Your task to perform on an android device: Clear the cart on newegg. Add usb-b to the cart on newegg Image 0: 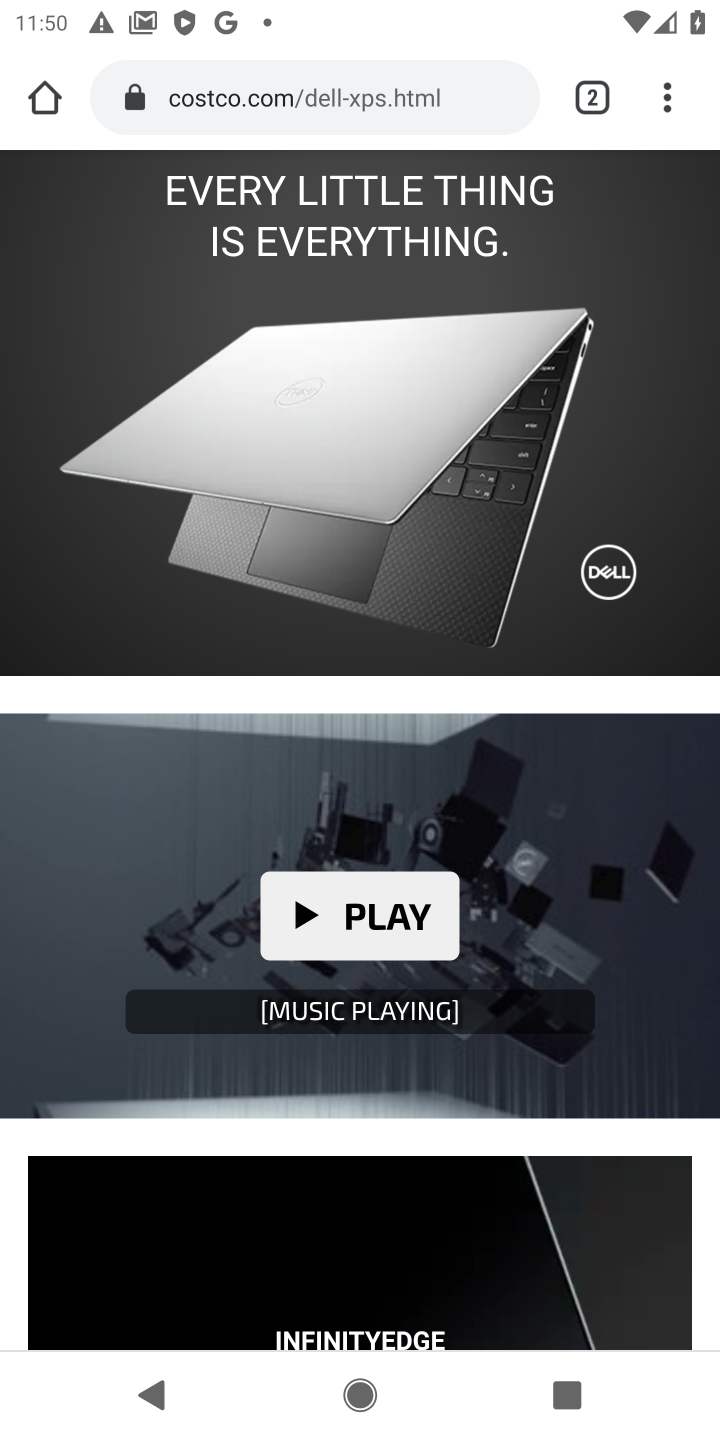
Step 0: press home button
Your task to perform on an android device: Clear the cart on newegg. Add usb-b to the cart on newegg Image 1: 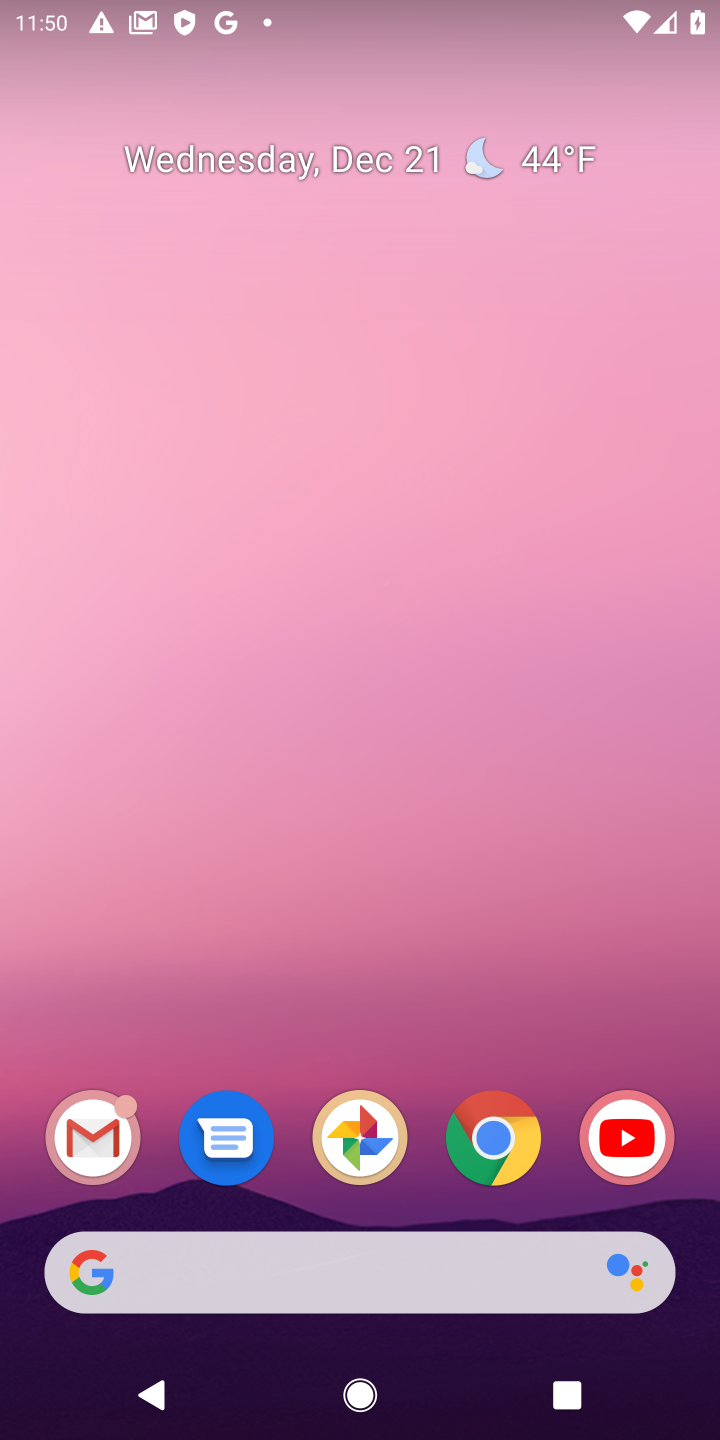
Step 1: click (479, 1152)
Your task to perform on an android device: Clear the cart on newegg. Add usb-b to the cart on newegg Image 2: 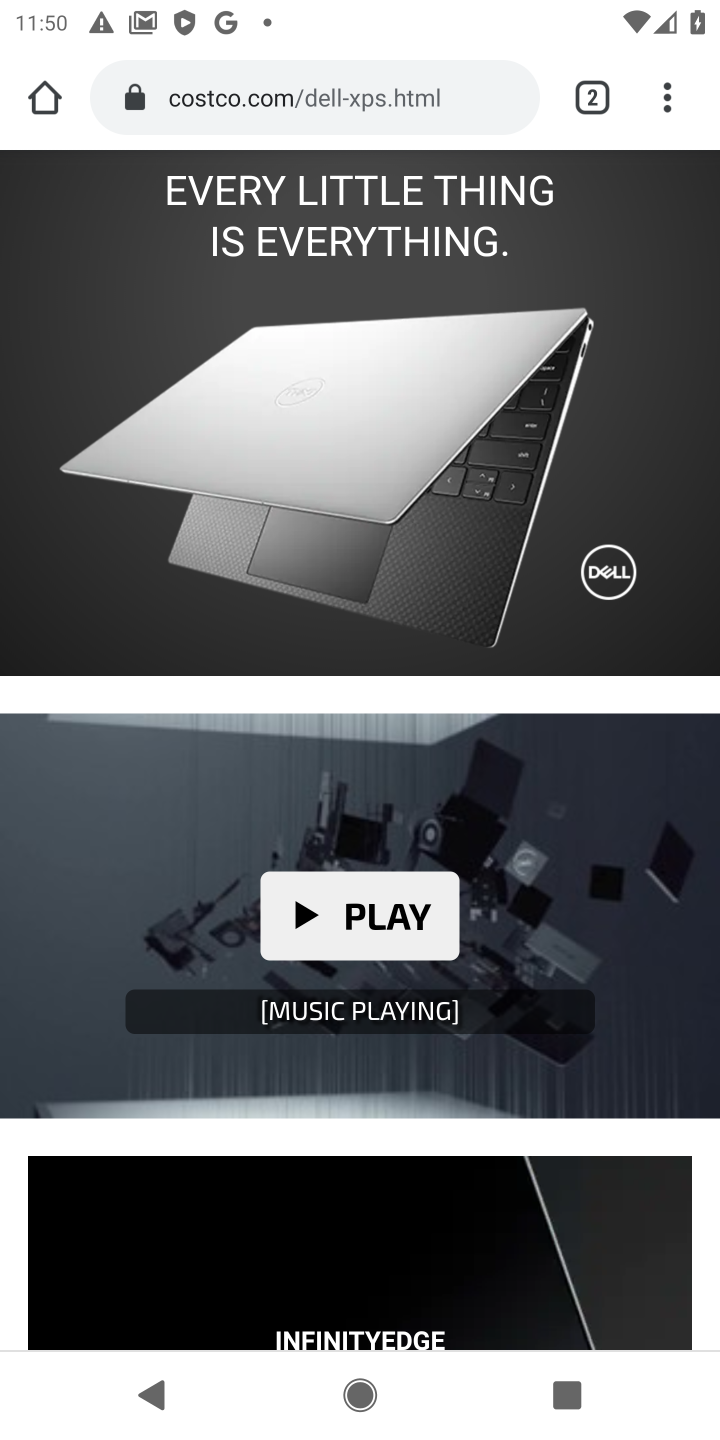
Step 2: click (255, 105)
Your task to perform on an android device: Clear the cart on newegg. Add usb-b to the cart on newegg Image 3: 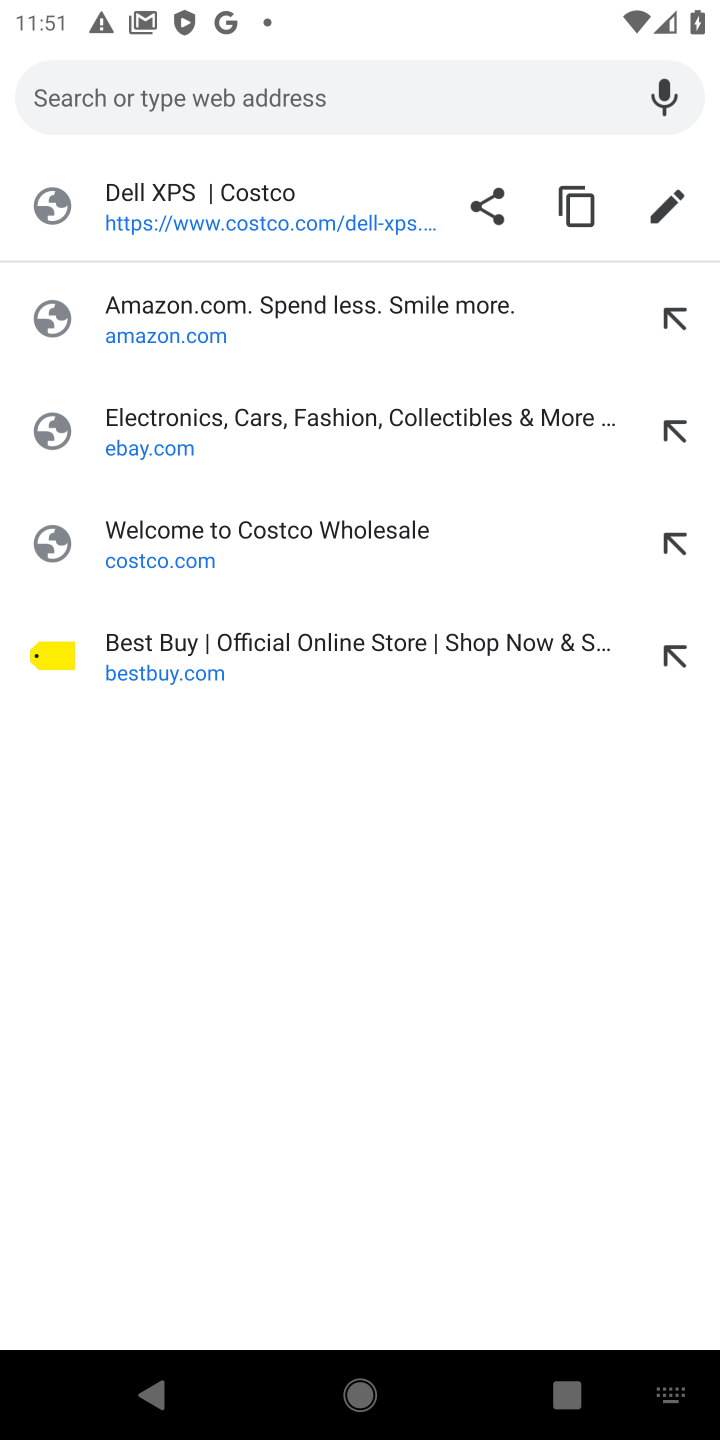
Step 3: type "newegg.com"
Your task to perform on an android device: Clear the cart on newegg. Add usb-b to the cart on newegg Image 4: 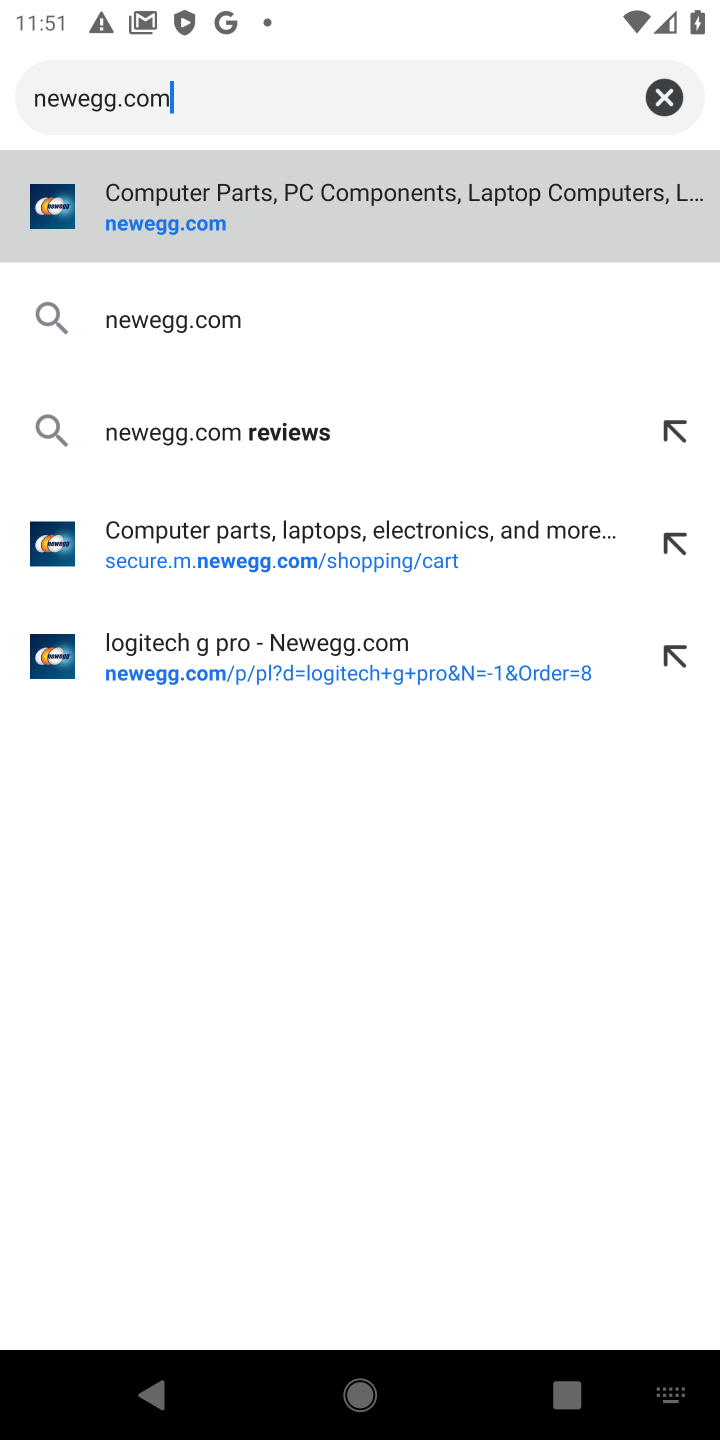
Step 4: click (155, 204)
Your task to perform on an android device: Clear the cart on newegg. Add usb-b to the cart on newegg Image 5: 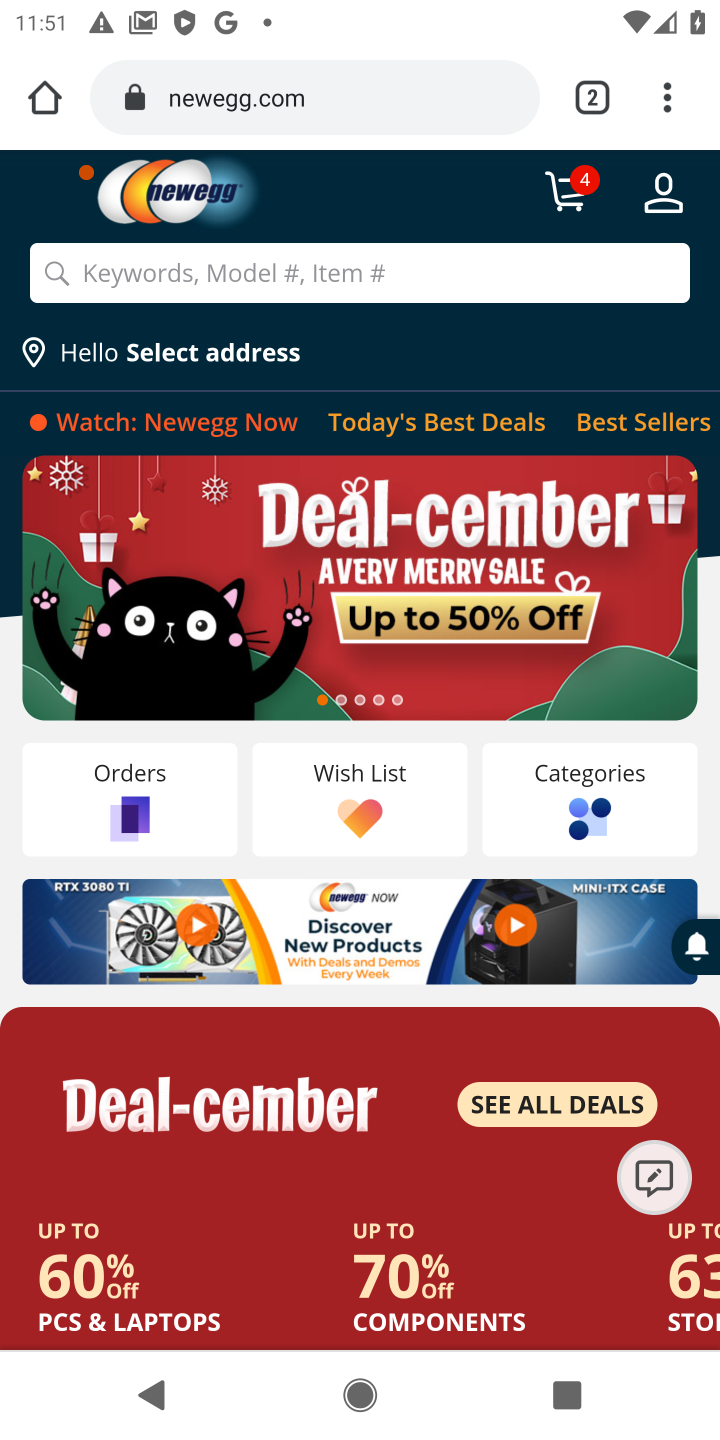
Step 5: click (563, 197)
Your task to perform on an android device: Clear the cart on newegg. Add usb-b to the cart on newegg Image 6: 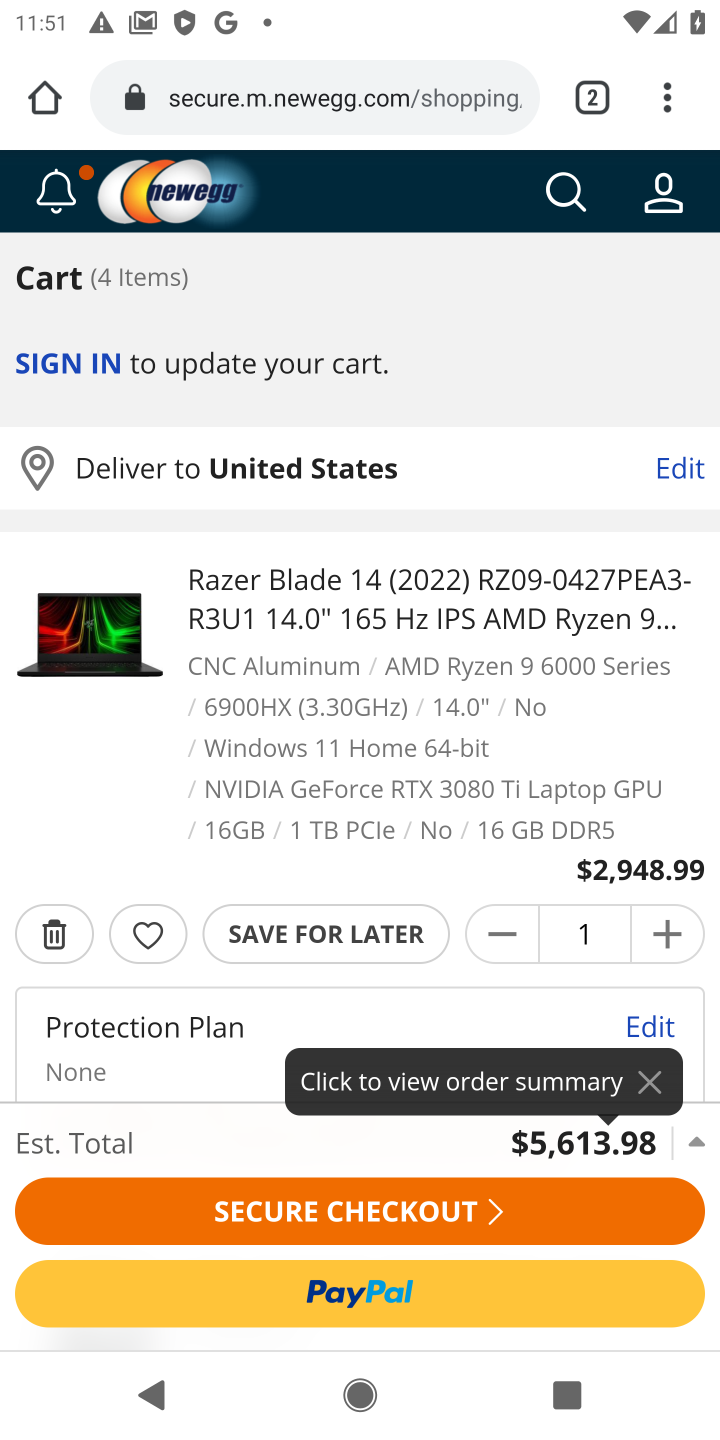
Step 6: click (47, 934)
Your task to perform on an android device: Clear the cart on newegg. Add usb-b to the cart on newegg Image 7: 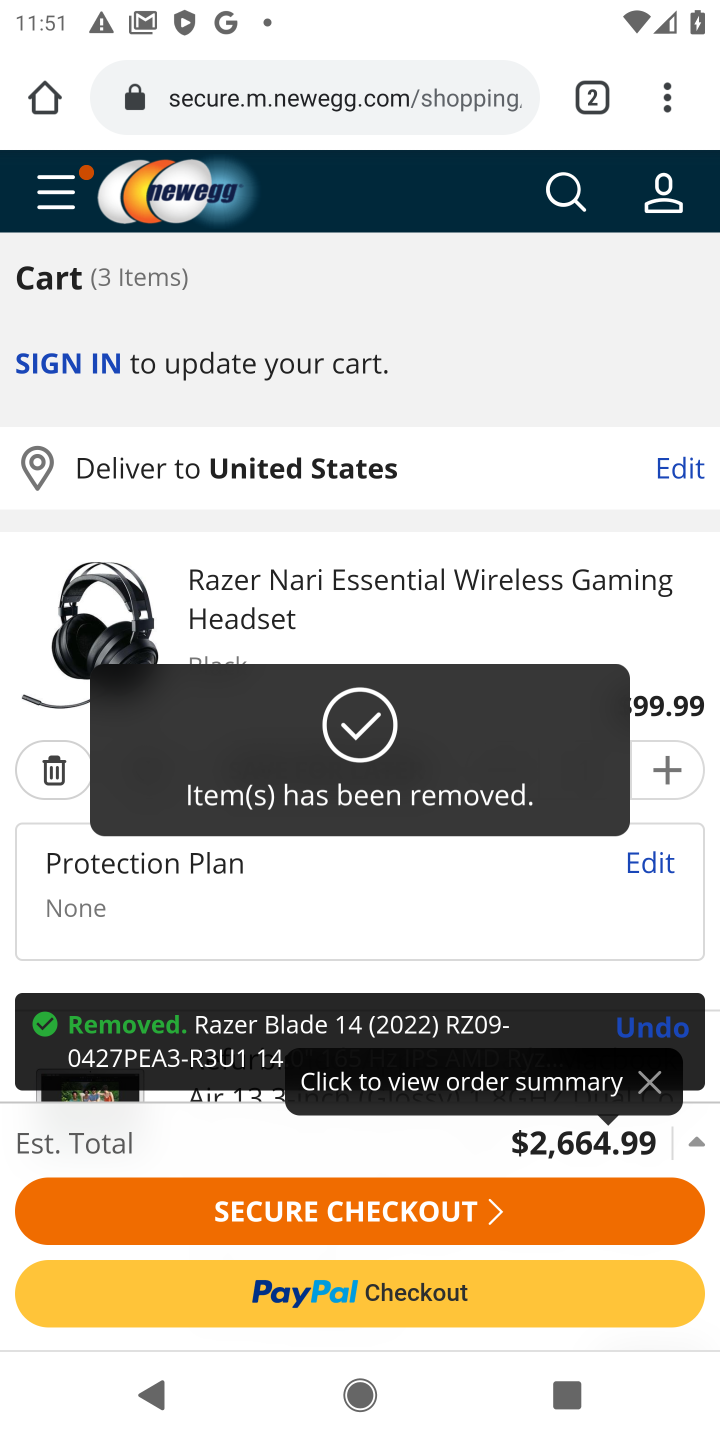
Step 7: click (58, 772)
Your task to perform on an android device: Clear the cart on newegg. Add usb-b to the cart on newegg Image 8: 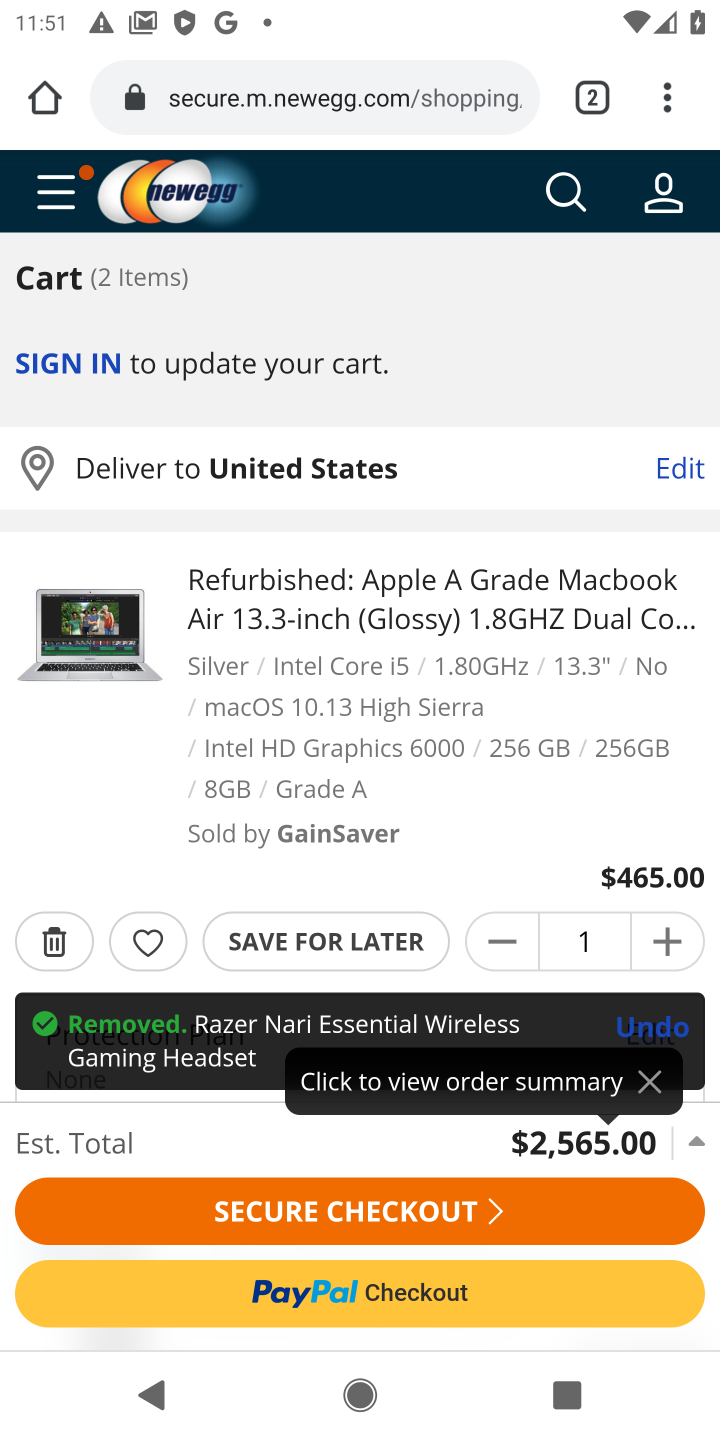
Step 8: click (43, 951)
Your task to perform on an android device: Clear the cart on newegg. Add usb-b to the cart on newegg Image 9: 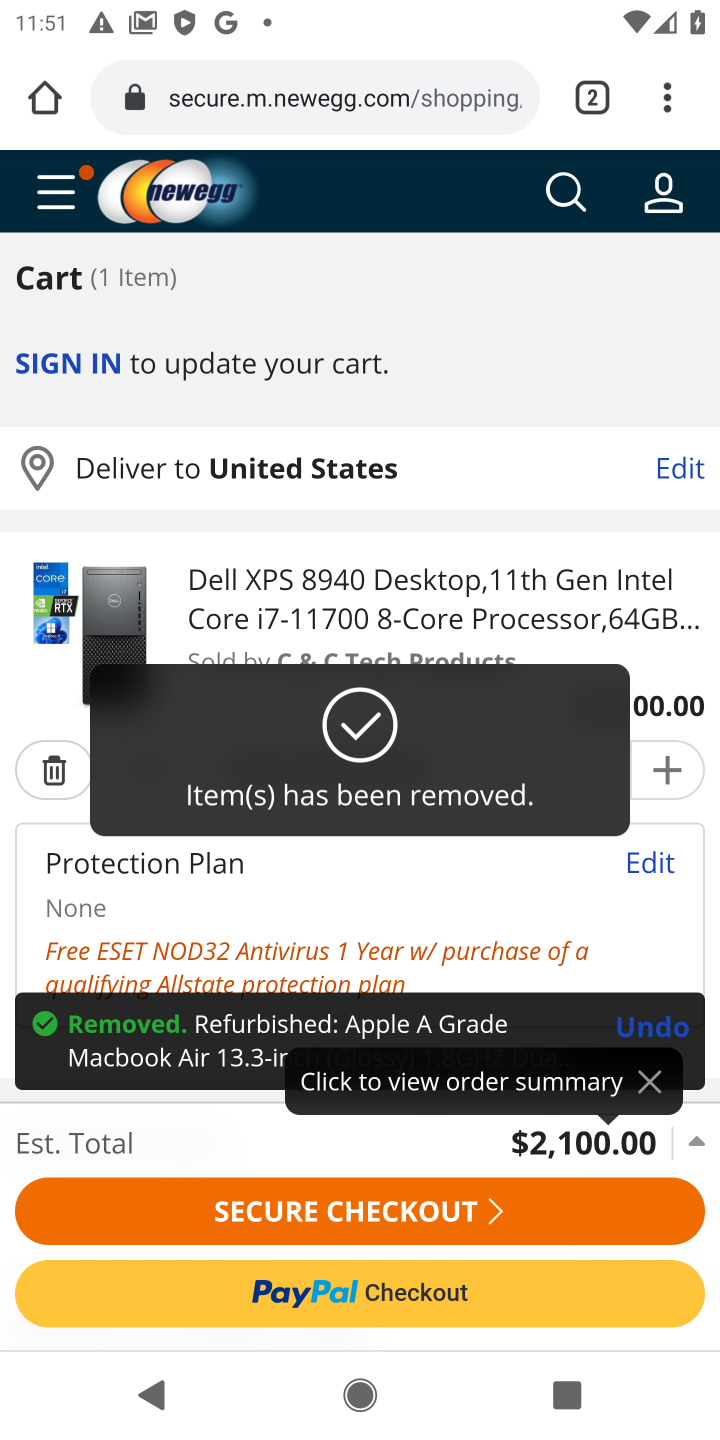
Step 9: click (47, 778)
Your task to perform on an android device: Clear the cart on newegg. Add usb-b to the cart on newegg Image 10: 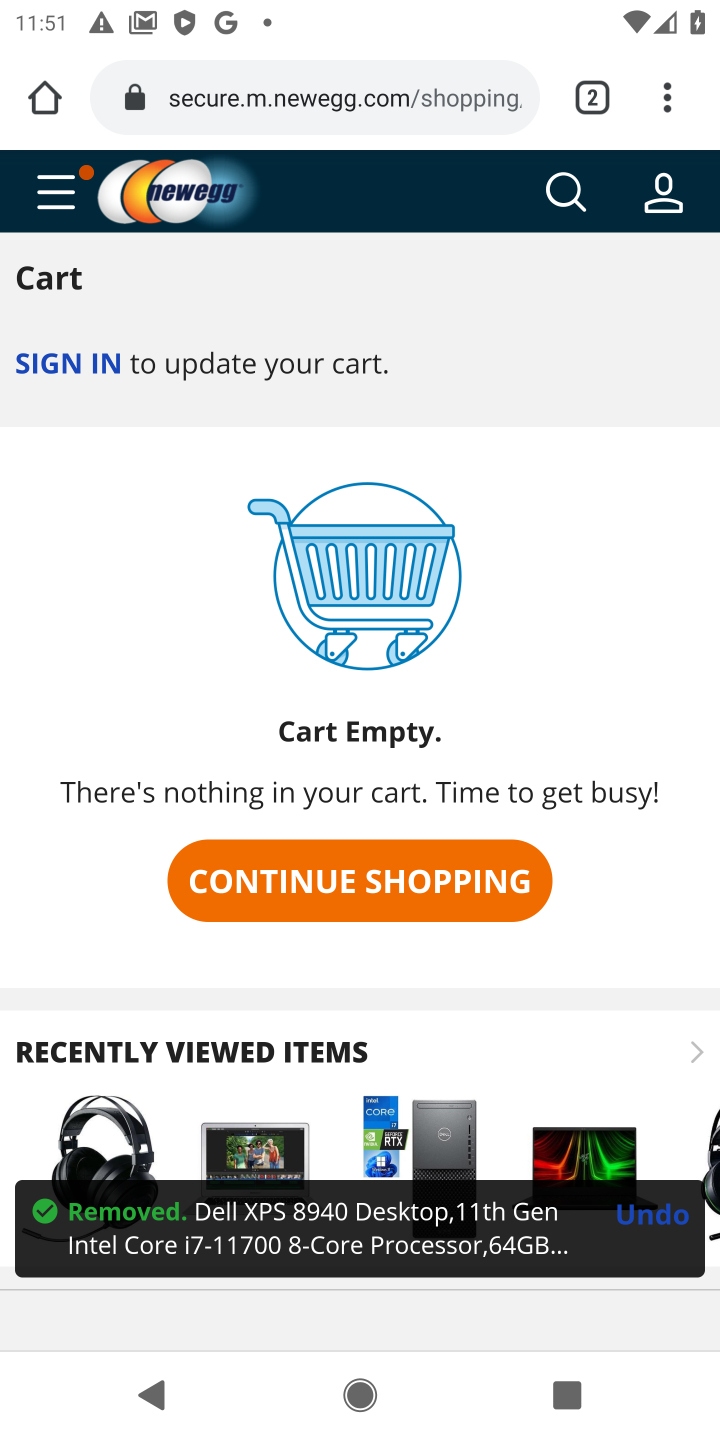
Step 10: click (577, 202)
Your task to perform on an android device: Clear the cart on newegg. Add usb-b to the cart on newegg Image 11: 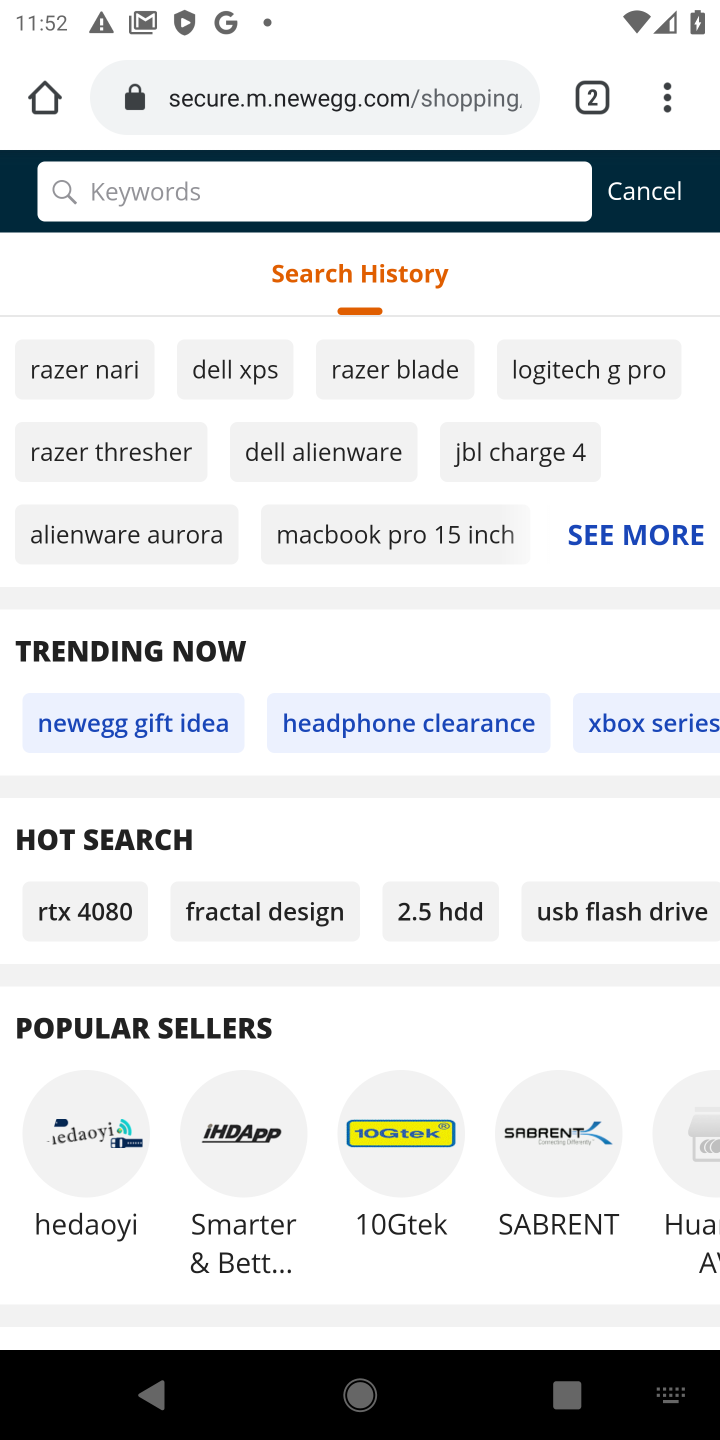
Step 11: type "usb-b"
Your task to perform on an android device: Clear the cart on newegg. Add usb-b to the cart on newegg Image 12: 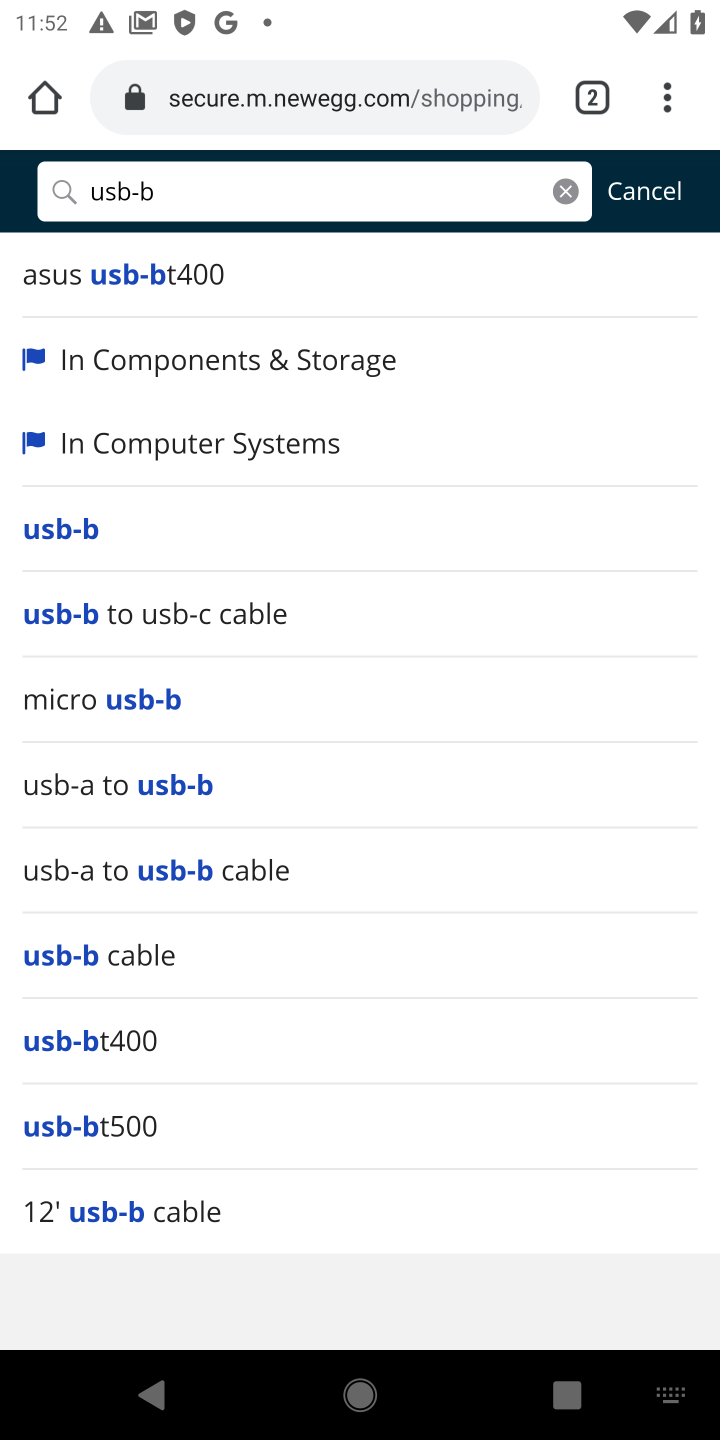
Step 12: click (78, 542)
Your task to perform on an android device: Clear the cart on newegg. Add usb-b to the cart on newegg Image 13: 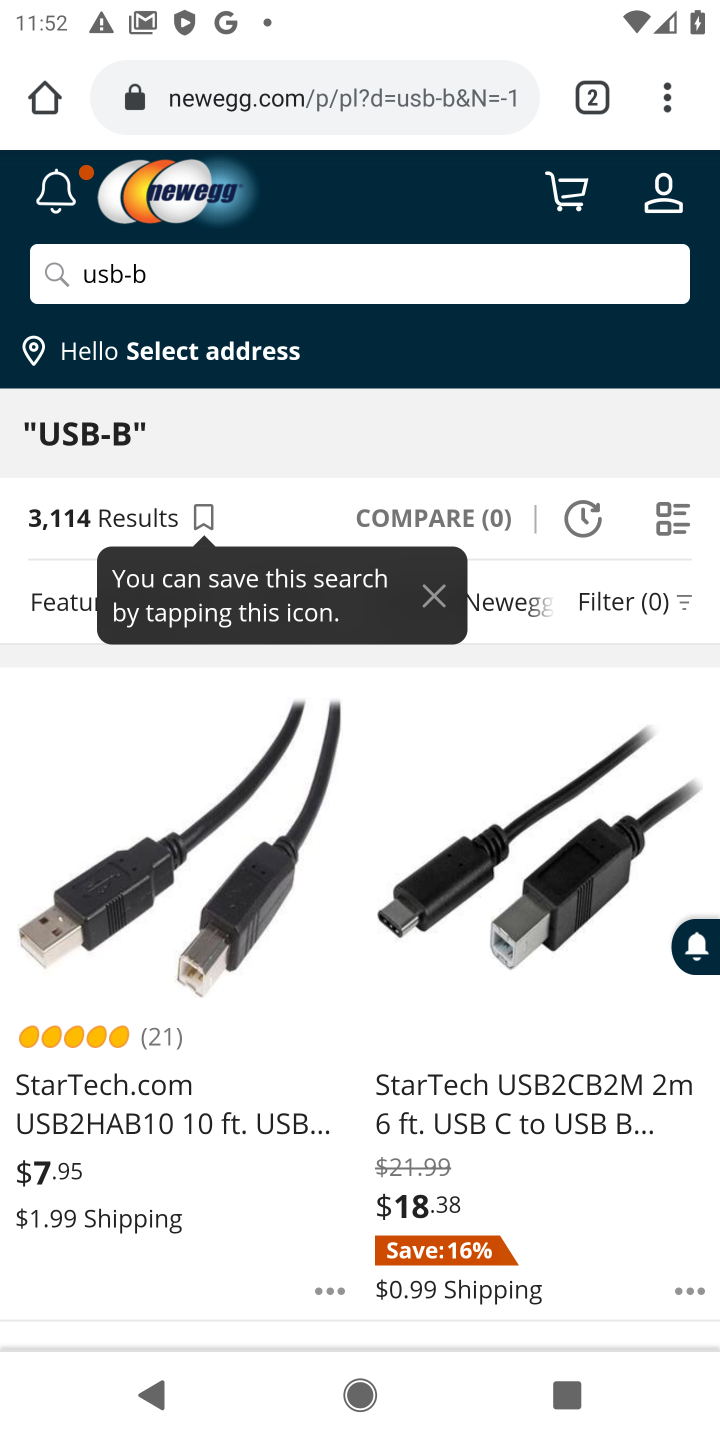
Step 13: drag from (213, 1188) to (241, 804)
Your task to perform on an android device: Clear the cart on newegg. Add usb-b to the cart on newegg Image 14: 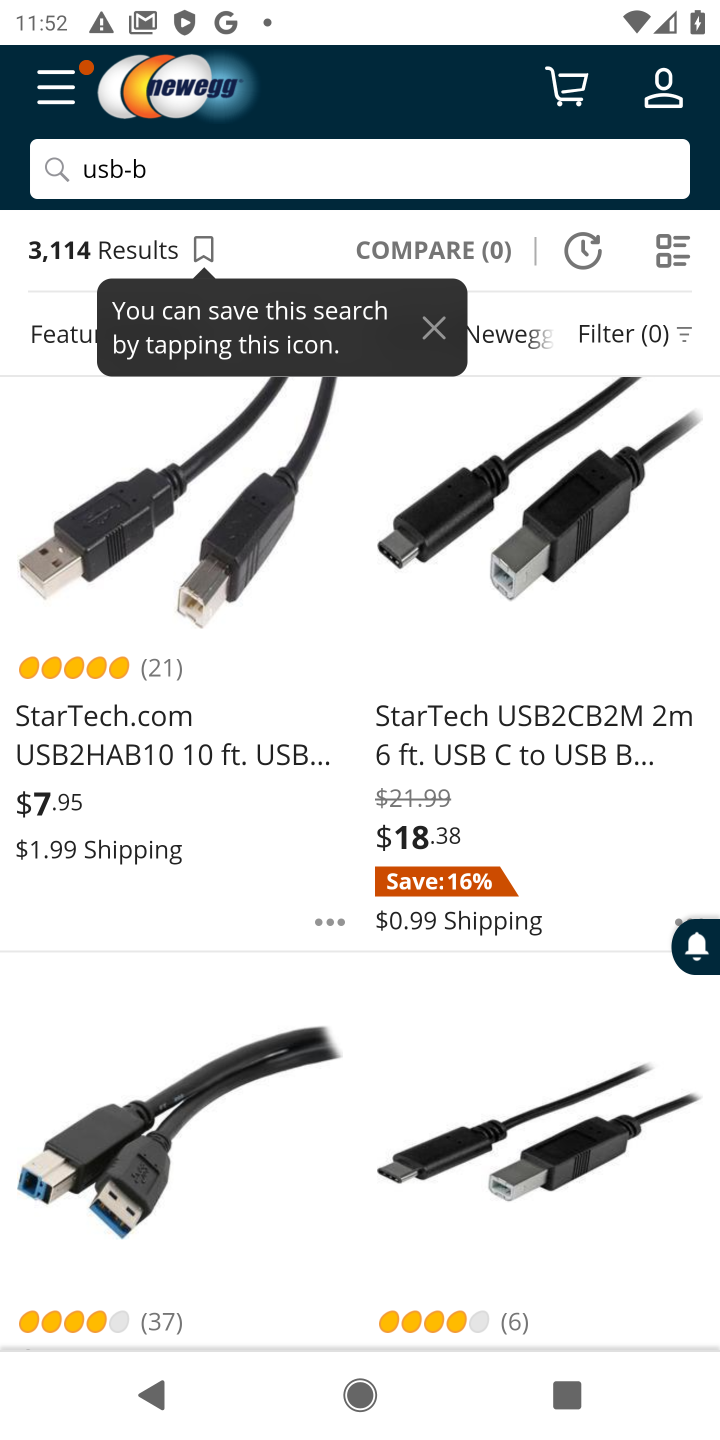
Step 14: click (466, 745)
Your task to perform on an android device: Clear the cart on newegg. Add usb-b to the cart on newegg Image 15: 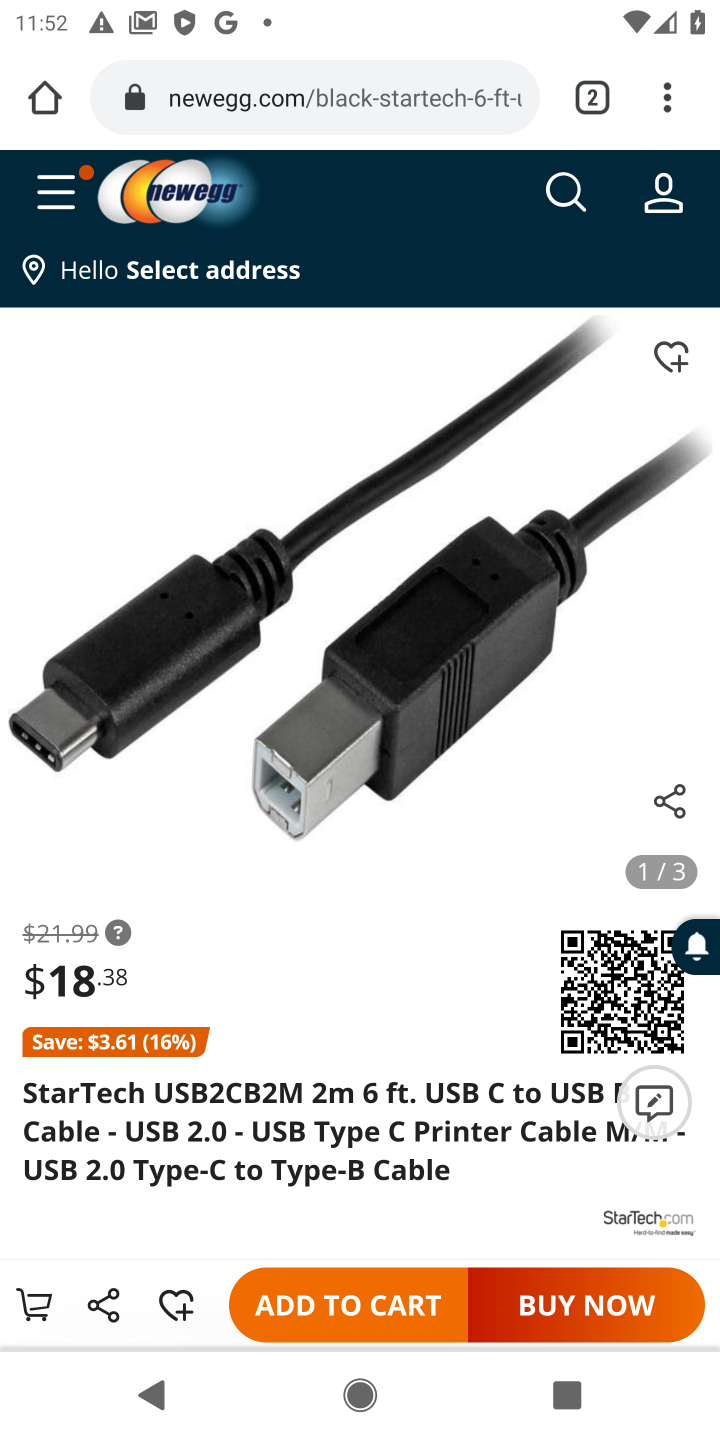
Step 15: drag from (185, 1128) to (192, 990)
Your task to perform on an android device: Clear the cart on newegg. Add usb-b to the cart on newegg Image 16: 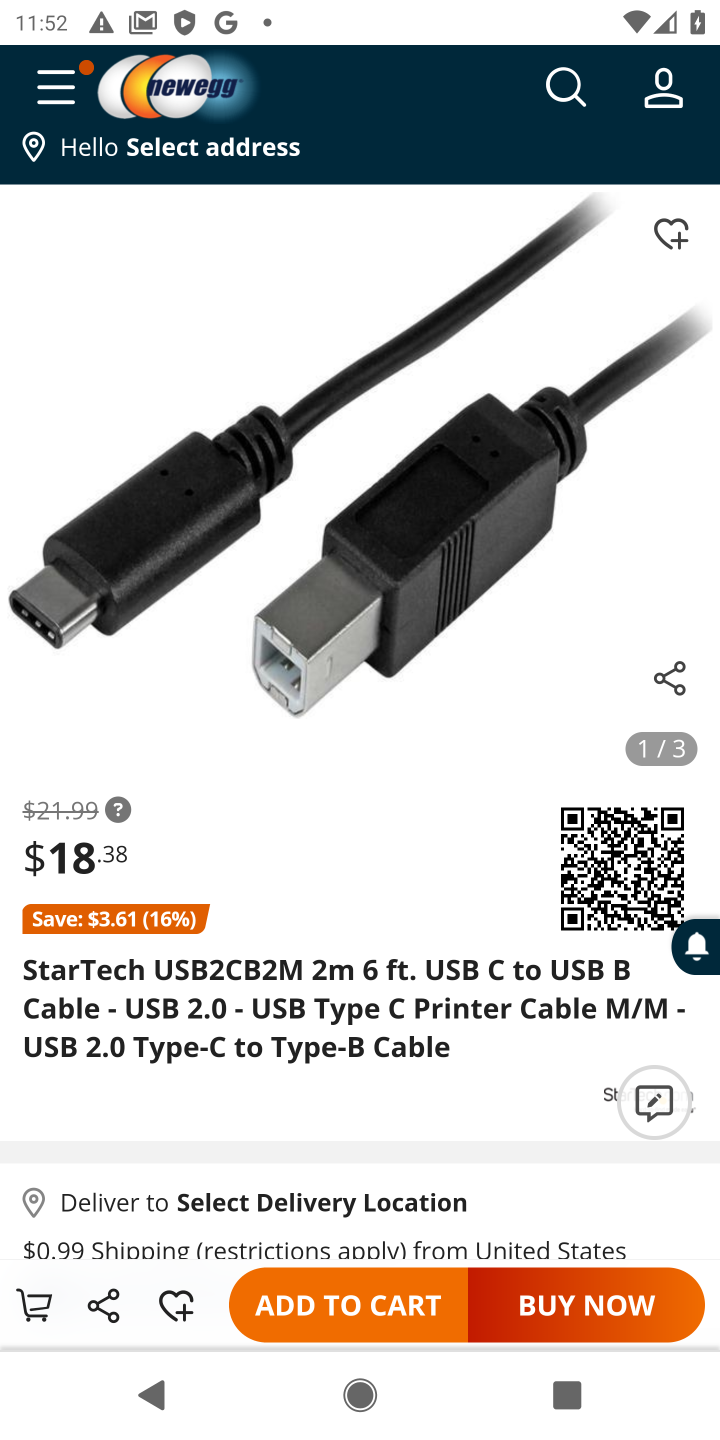
Step 16: click (337, 1303)
Your task to perform on an android device: Clear the cart on newegg. Add usb-b to the cart on newegg Image 17: 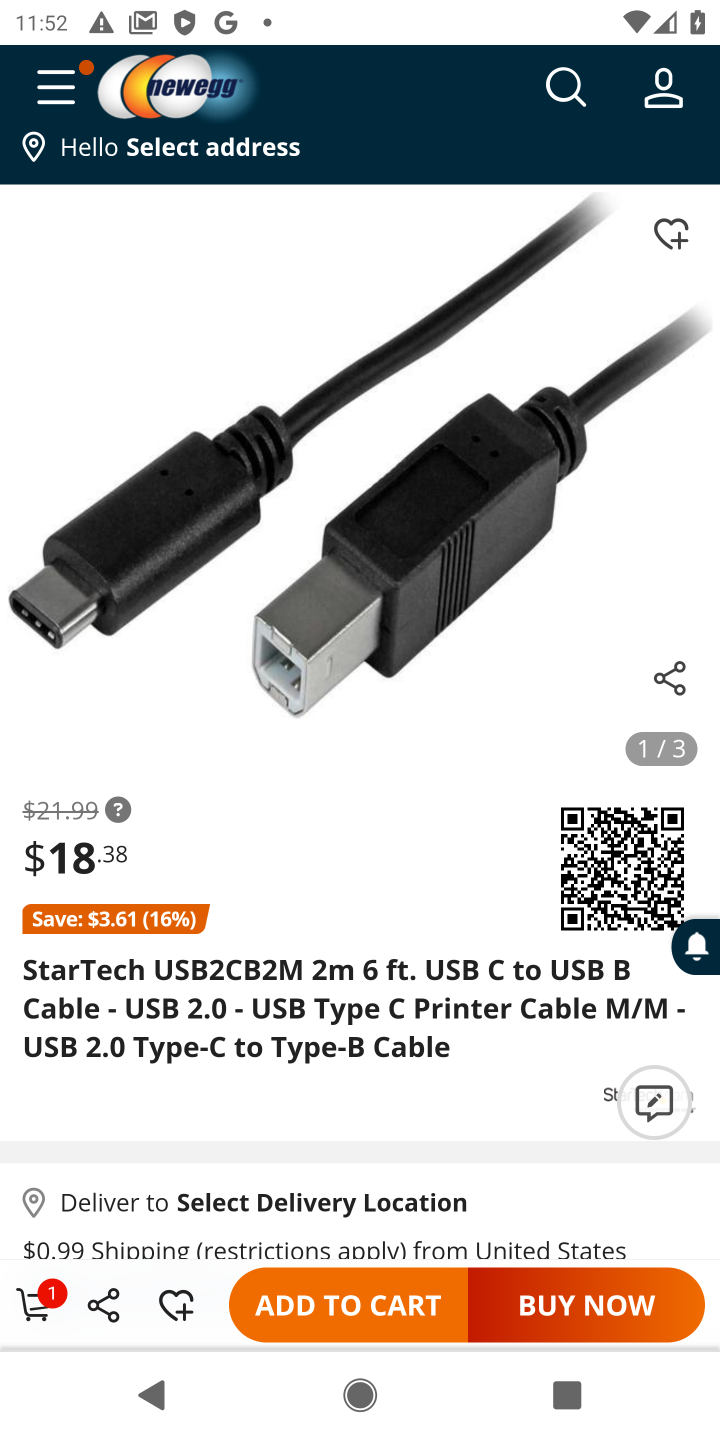
Step 17: task complete